Your task to perform on an android device: Go to calendar. Show me events next week Image 0: 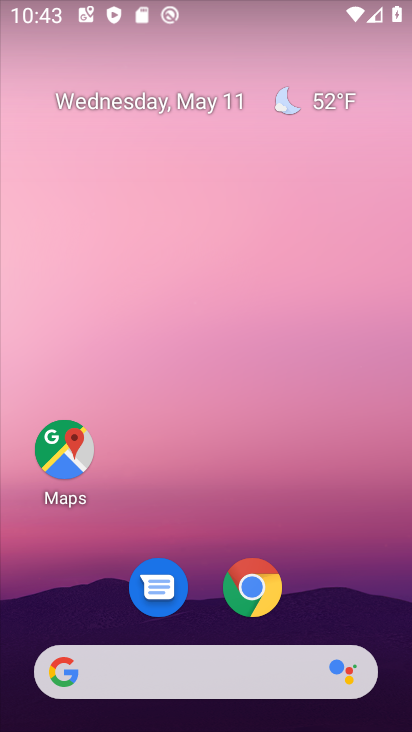
Step 0: drag from (251, 695) to (236, 185)
Your task to perform on an android device: Go to calendar. Show me events next week Image 1: 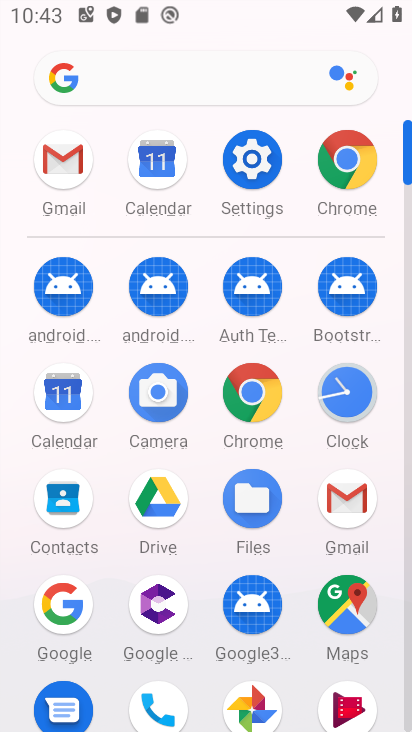
Step 1: click (78, 404)
Your task to perform on an android device: Go to calendar. Show me events next week Image 2: 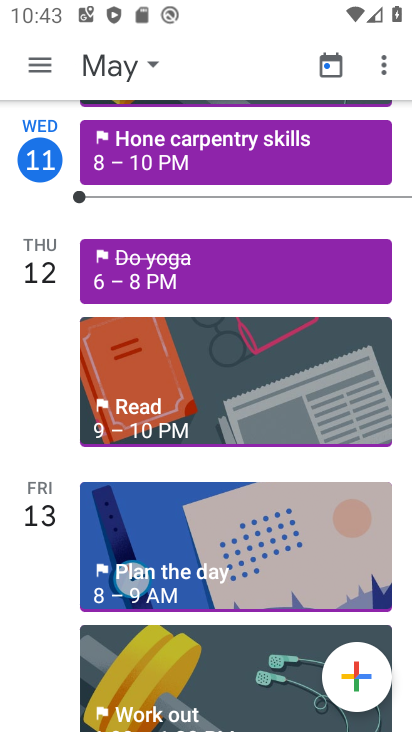
Step 2: click (35, 62)
Your task to perform on an android device: Go to calendar. Show me events next week Image 3: 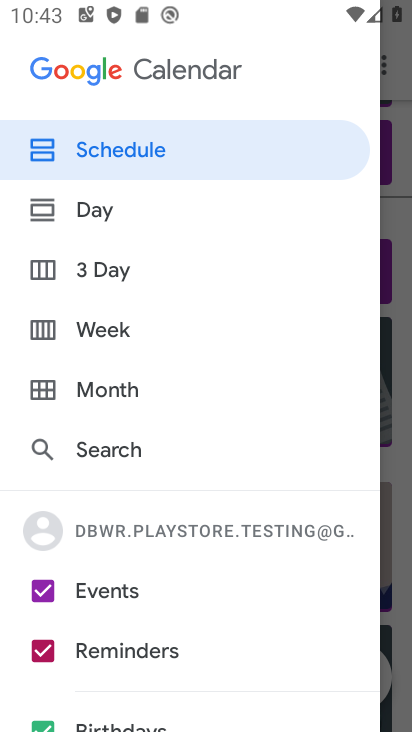
Step 3: click (130, 331)
Your task to perform on an android device: Go to calendar. Show me events next week Image 4: 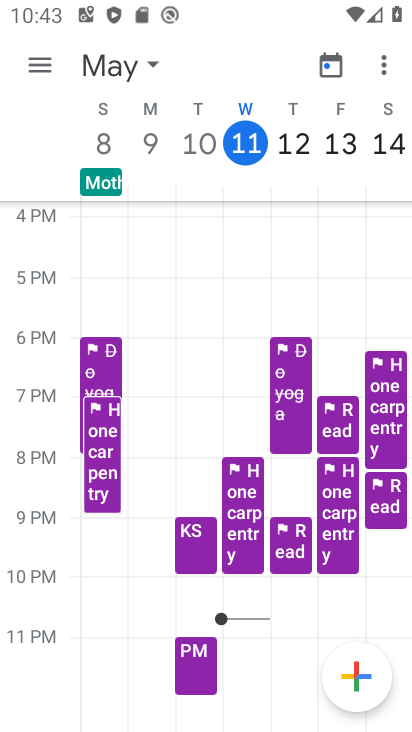
Step 4: task complete